Your task to perform on an android device: Open Google Image 0: 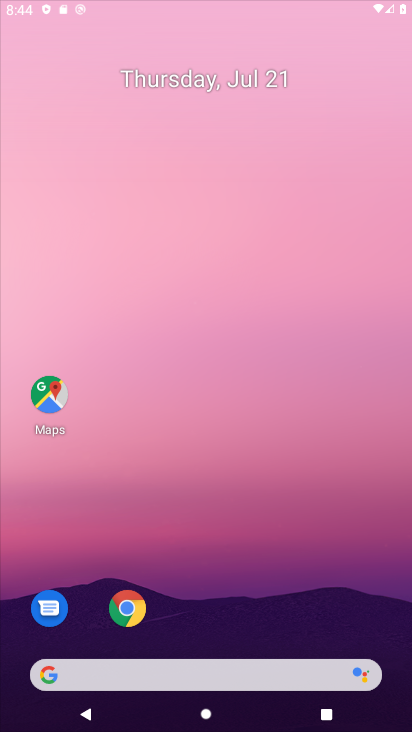
Step 0: drag from (192, 350) to (185, 202)
Your task to perform on an android device: Open Google Image 1: 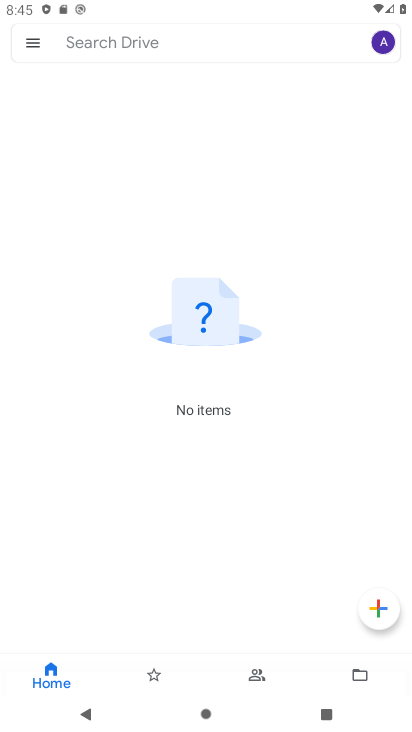
Step 1: press home button
Your task to perform on an android device: Open Google Image 2: 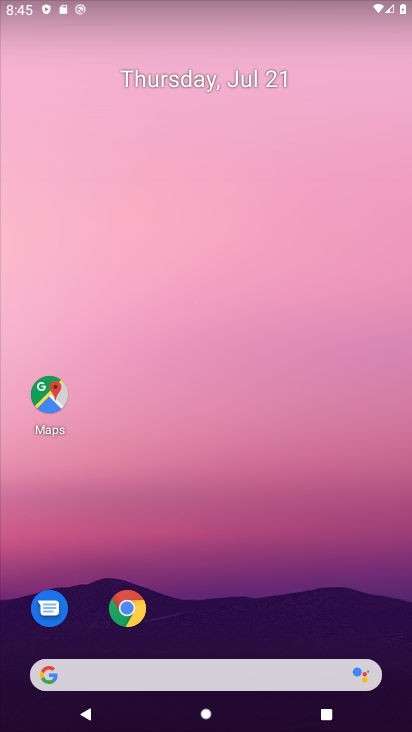
Step 2: drag from (223, 635) to (180, 136)
Your task to perform on an android device: Open Google Image 3: 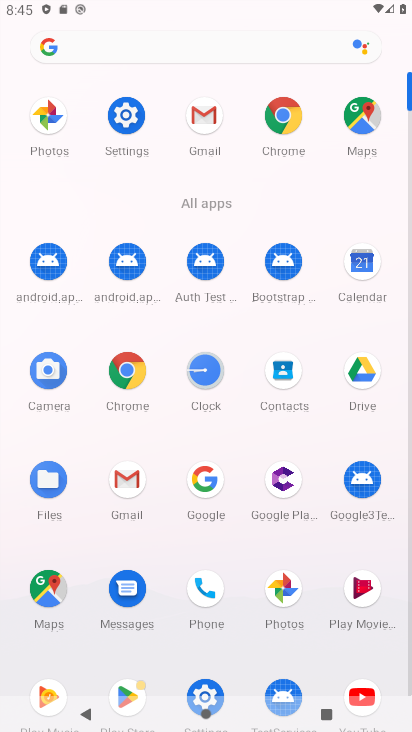
Step 3: click (211, 488)
Your task to perform on an android device: Open Google Image 4: 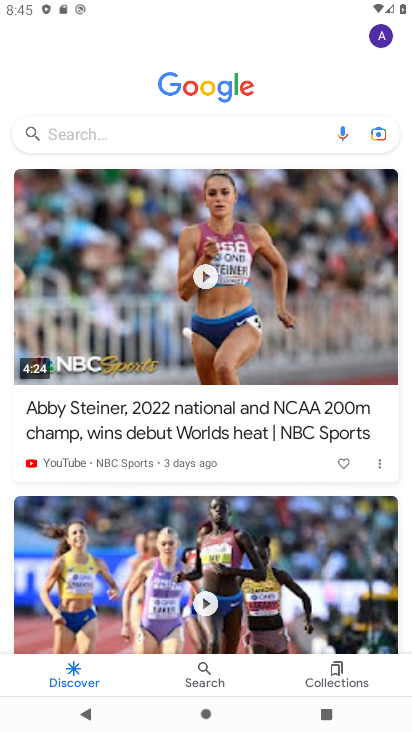
Step 4: task complete